Your task to perform on an android device: What's on my calendar tomorrow? Image 0: 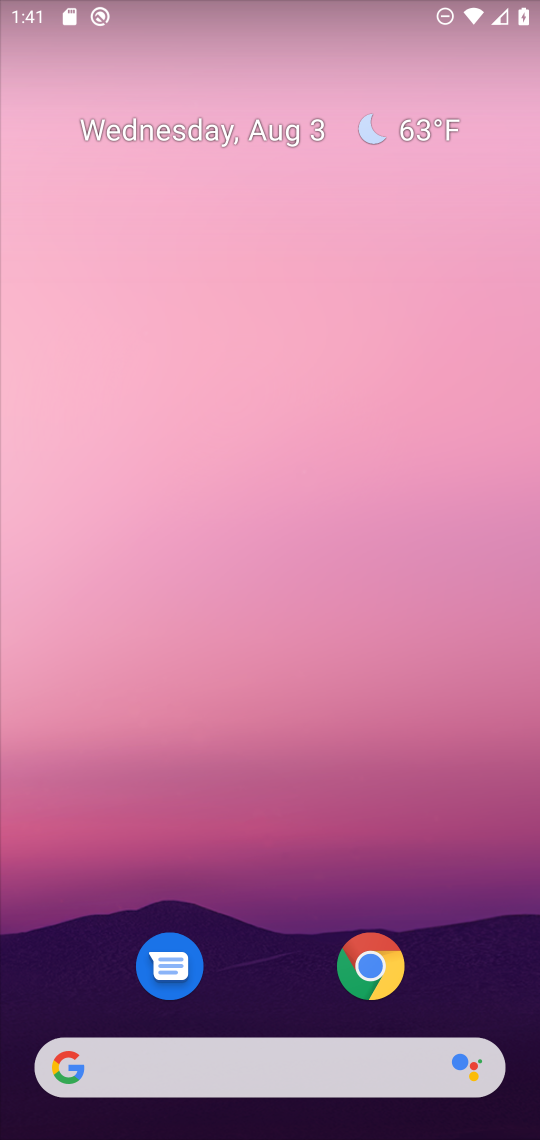
Step 0: drag from (355, 57) to (519, 552)
Your task to perform on an android device: What's on my calendar tomorrow? Image 1: 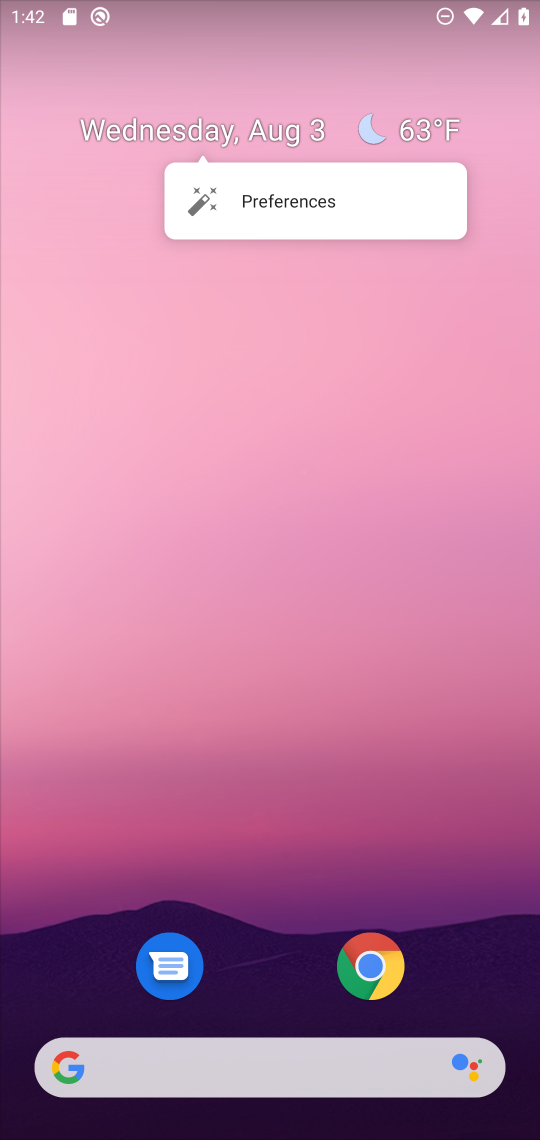
Step 1: click (301, 678)
Your task to perform on an android device: What's on my calendar tomorrow? Image 2: 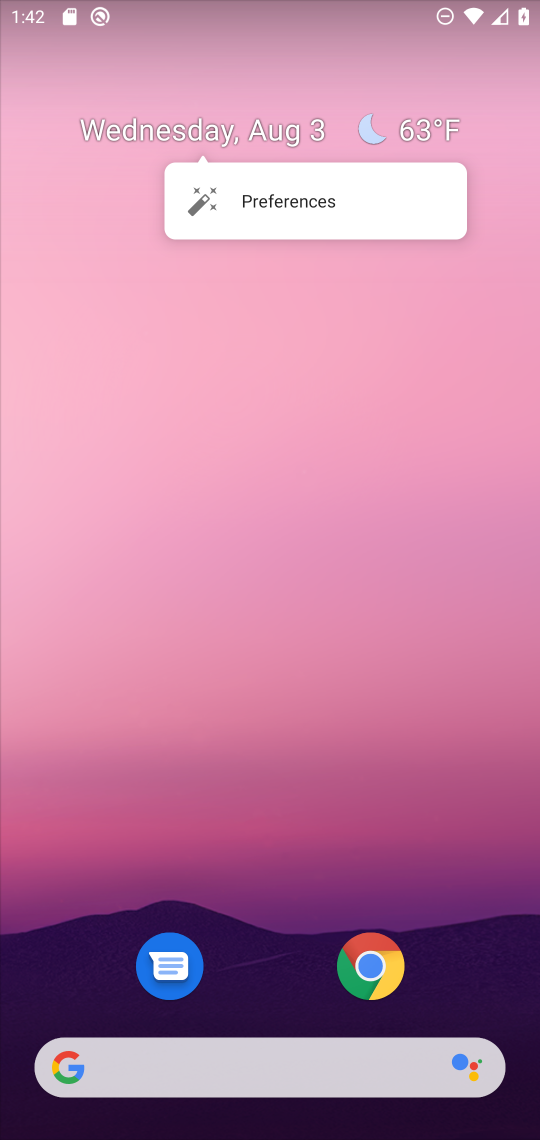
Step 2: drag from (300, 969) to (327, 335)
Your task to perform on an android device: What's on my calendar tomorrow? Image 3: 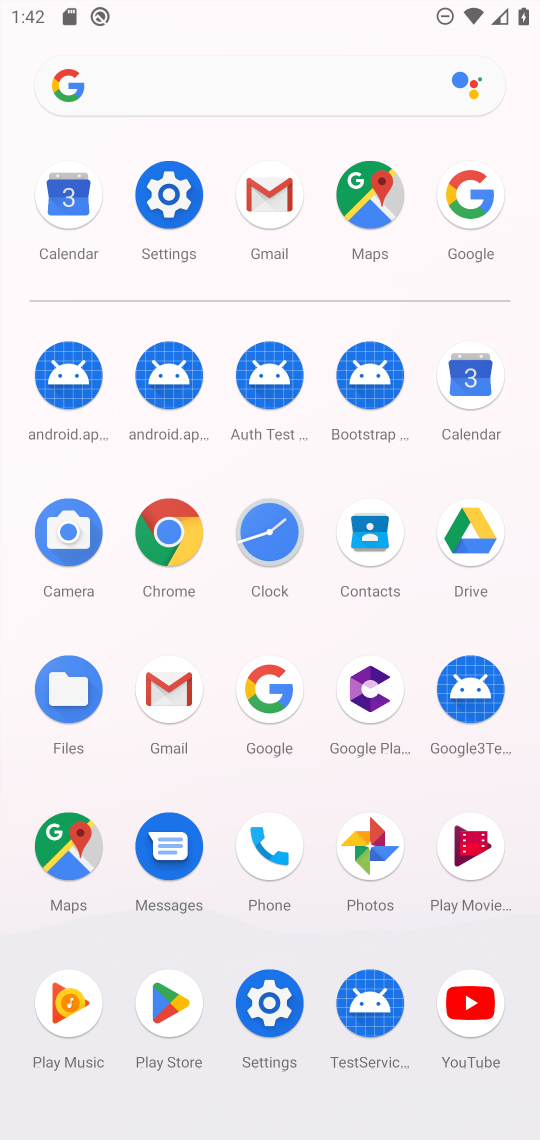
Step 3: click (65, 222)
Your task to perform on an android device: What's on my calendar tomorrow? Image 4: 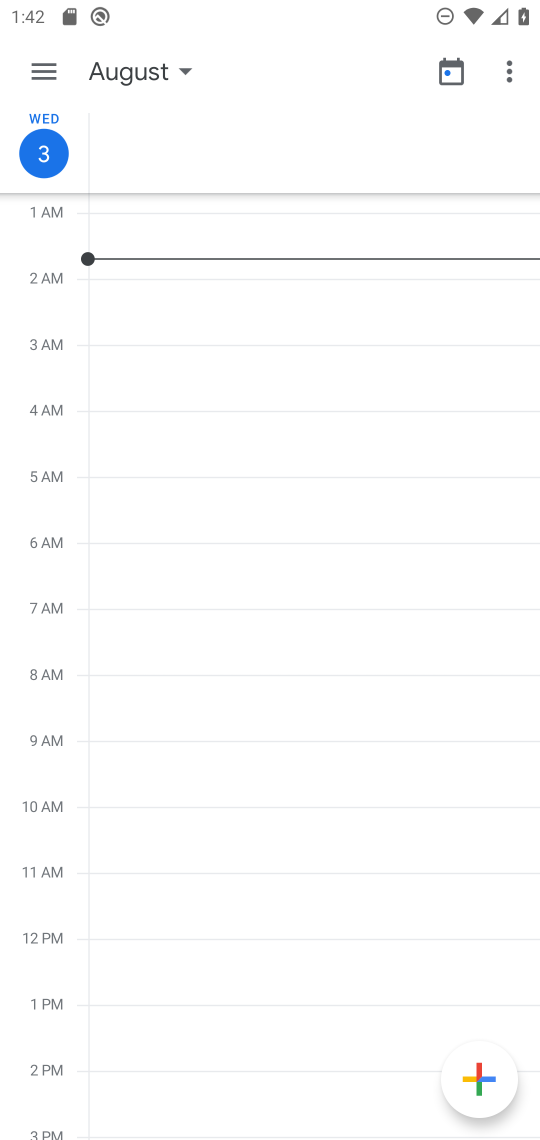
Step 4: click (201, 90)
Your task to perform on an android device: What's on my calendar tomorrow? Image 5: 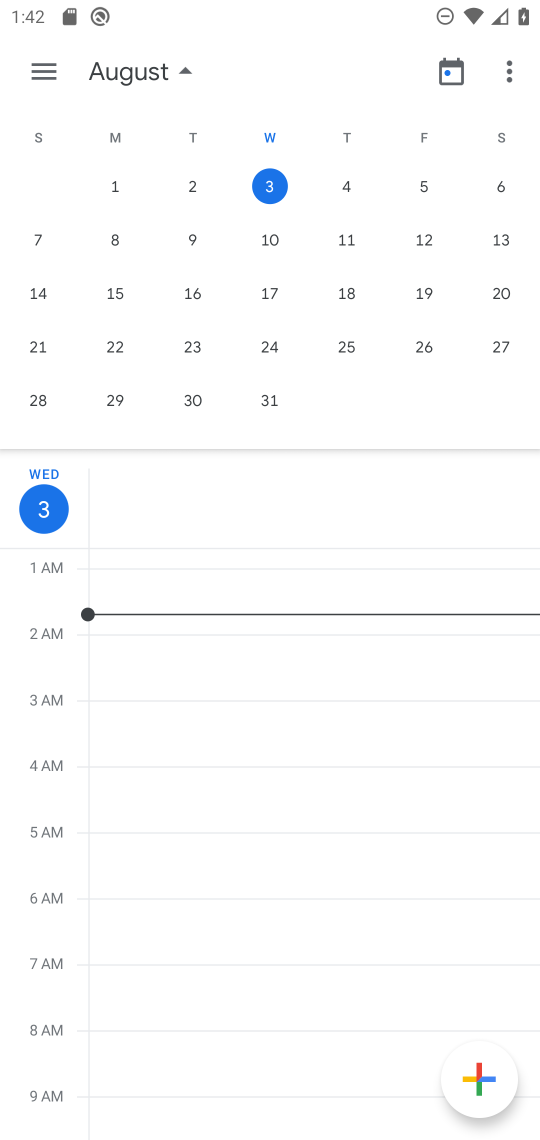
Step 5: click (341, 177)
Your task to perform on an android device: What's on my calendar tomorrow? Image 6: 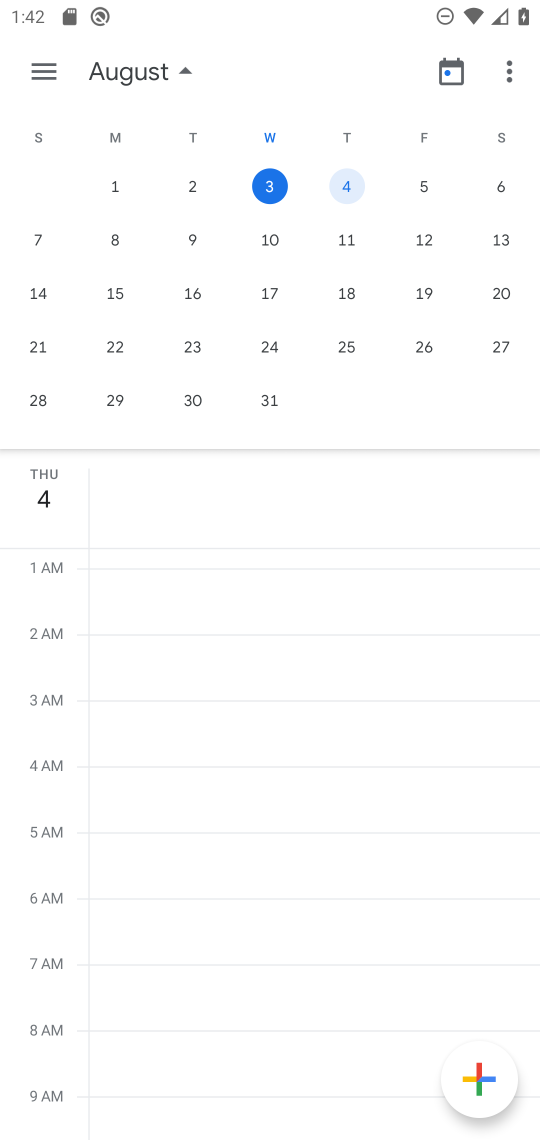
Step 6: task complete